Your task to perform on an android device: Go to eBay Image 0: 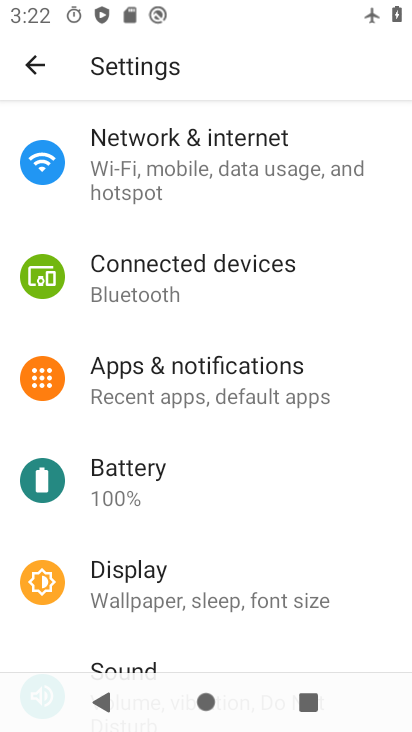
Step 0: press home button
Your task to perform on an android device: Go to eBay Image 1: 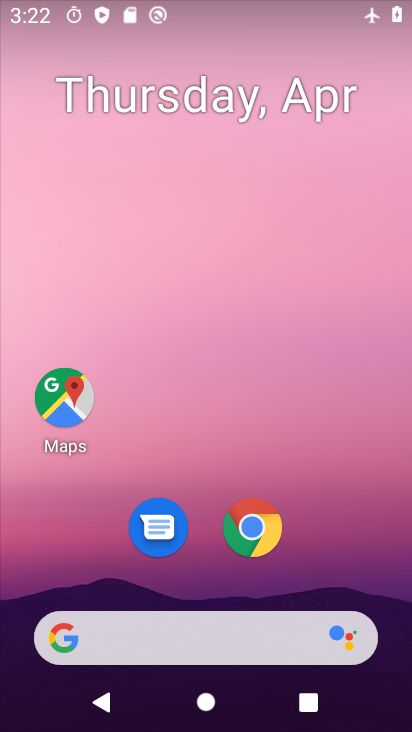
Step 1: click (264, 527)
Your task to perform on an android device: Go to eBay Image 2: 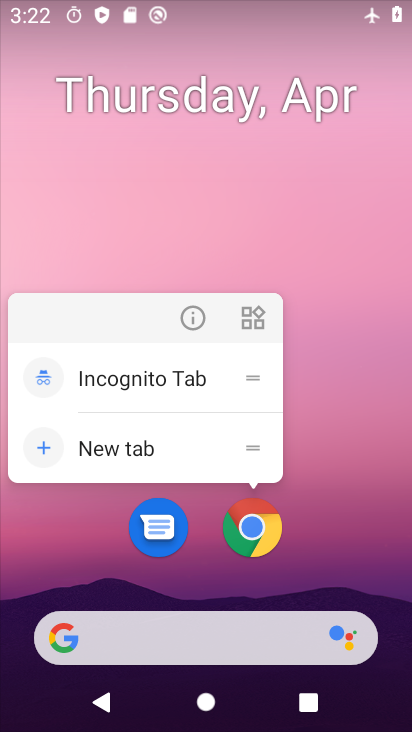
Step 2: click (262, 526)
Your task to perform on an android device: Go to eBay Image 3: 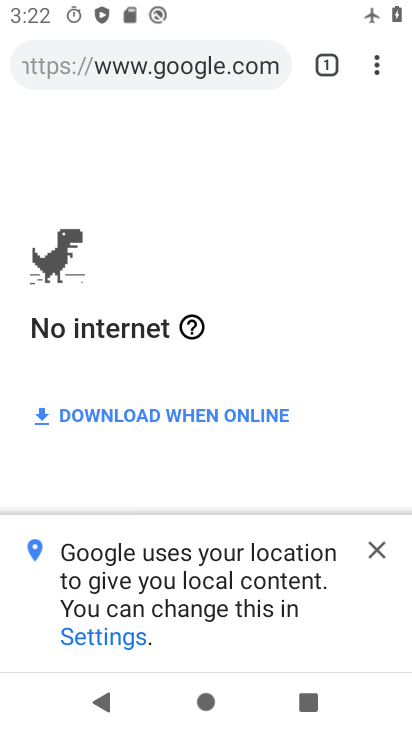
Step 3: click (210, 64)
Your task to perform on an android device: Go to eBay Image 4: 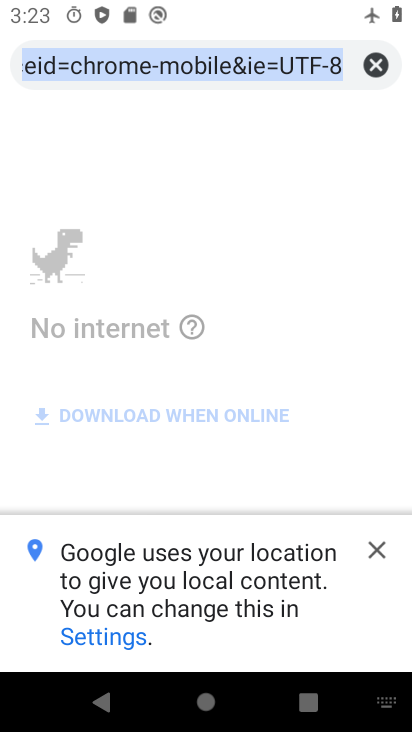
Step 4: type "ebay"
Your task to perform on an android device: Go to eBay Image 5: 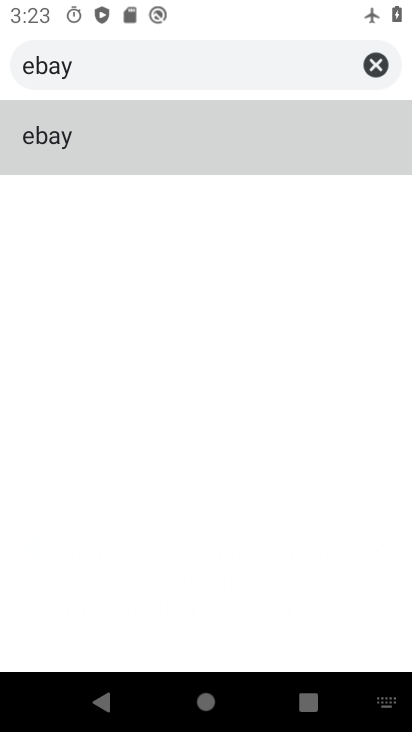
Step 5: click (31, 141)
Your task to perform on an android device: Go to eBay Image 6: 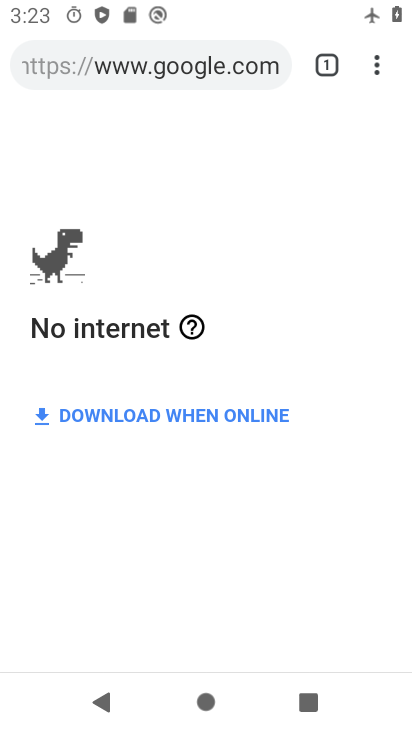
Step 6: task complete